Your task to perform on an android device: change alarm snooze length Image 0: 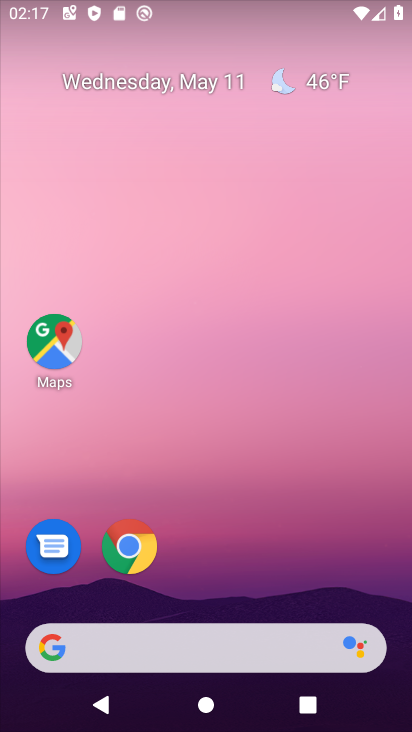
Step 0: drag from (256, 487) to (391, 122)
Your task to perform on an android device: change alarm snooze length Image 1: 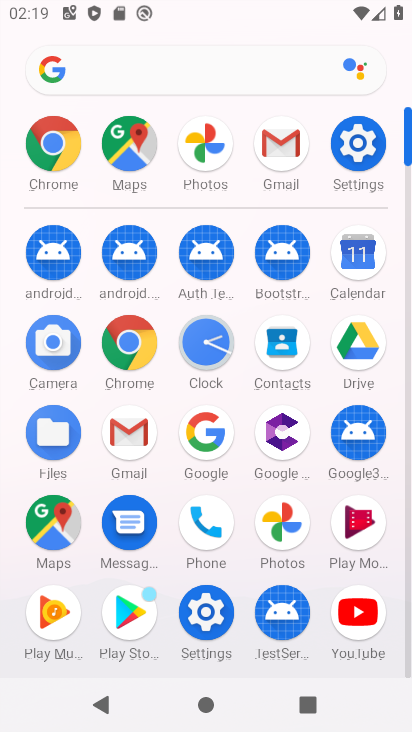
Step 1: click (196, 352)
Your task to perform on an android device: change alarm snooze length Image 2: 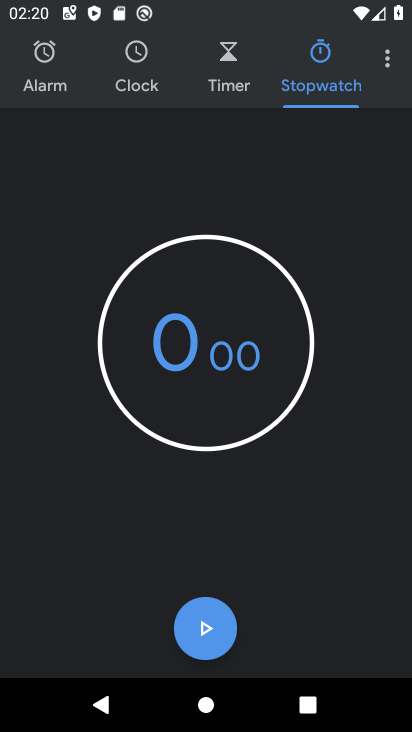
Step 2: drag from (255, 567) to (308, 366)
Your task to perform on an android device: change alarm snooze length Image 3: 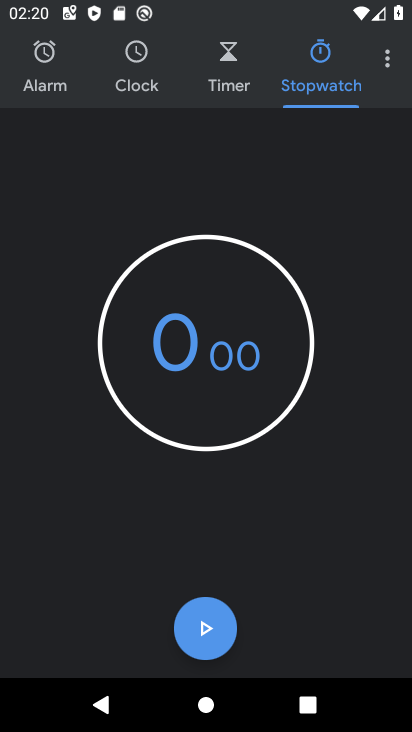
Step 3: click (382, 70)
Your task to perform on an android device: change alarm snooze length Image 4: 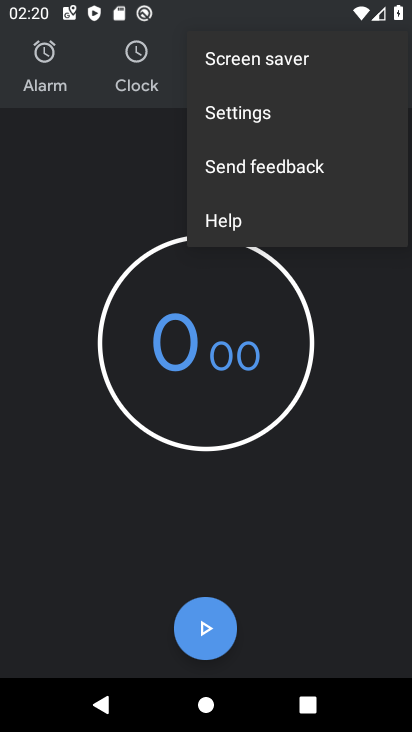
Step 4: click (274, 107)
Your task to perform on an android device: change alarm snooze length Image 5: 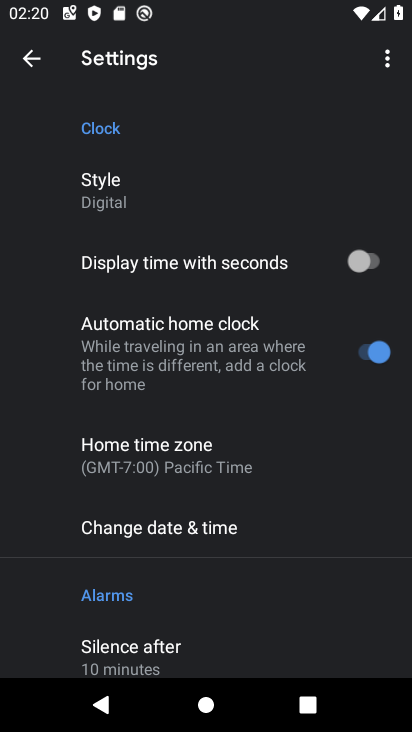
Step 5: drag from (214, 586) to (241, 211)
Your task to perform on an android device: change alarm snooze length Image 6: 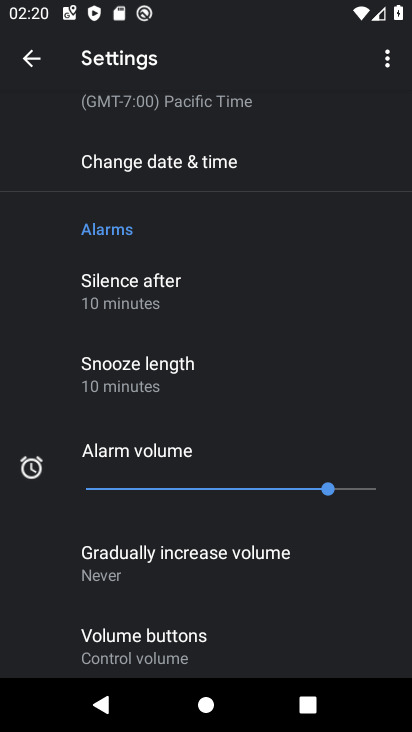
Step 6: click (191, 374)
Your task to perform on an android device: change alarm snooze length Image 7: 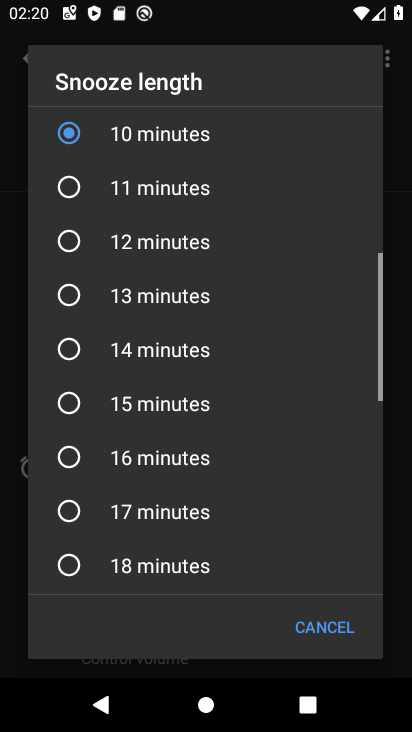
Step 7: click (180, 285)
Your task to perform on an android device: change alarm snooze length Image 8: 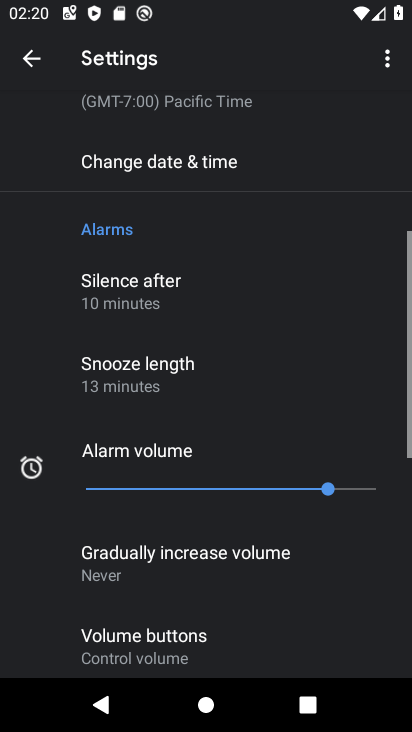
Step 8: task complete